Your task to perform on an android device: make emails show in primary in the gmail app Image 0: 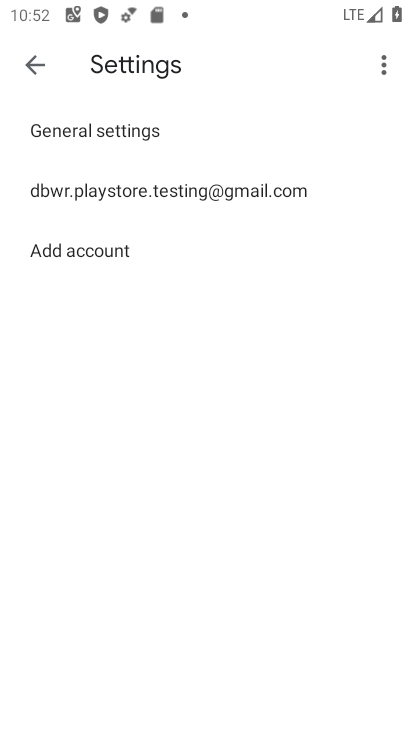
Step 0: press home button
Your task to perform on an android device: make emails show in primary in the gmail app Image 1: 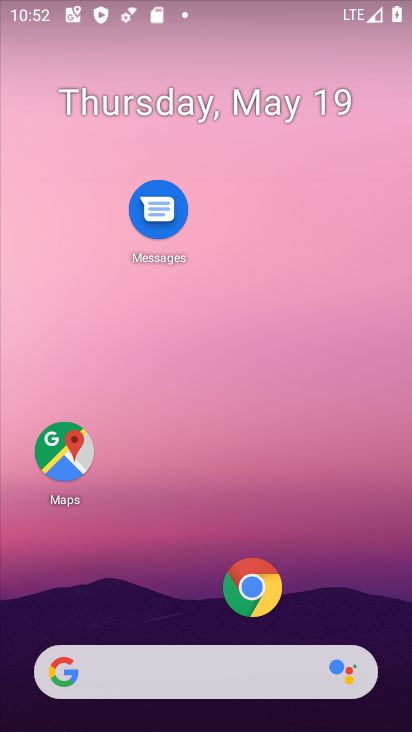
Step 1: drag from (162, 585) to (196, 42)
Your task to perform on an android device: make emails show in primary in the gmail app Image 2: 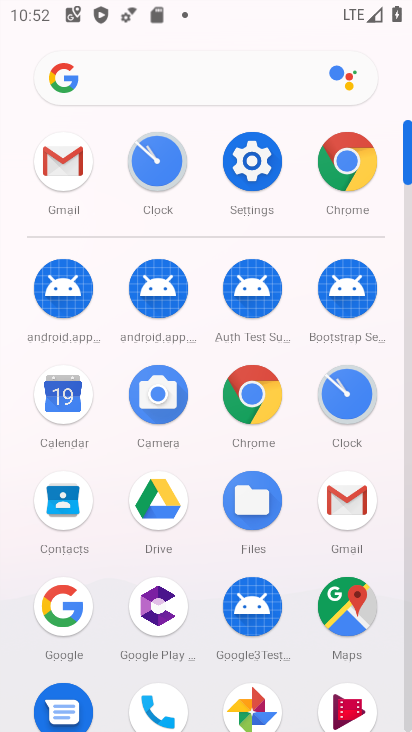
Step 2: click (56, 149)
Your task to perform on an android device: make emails show in primary in the gmail app Image 3: 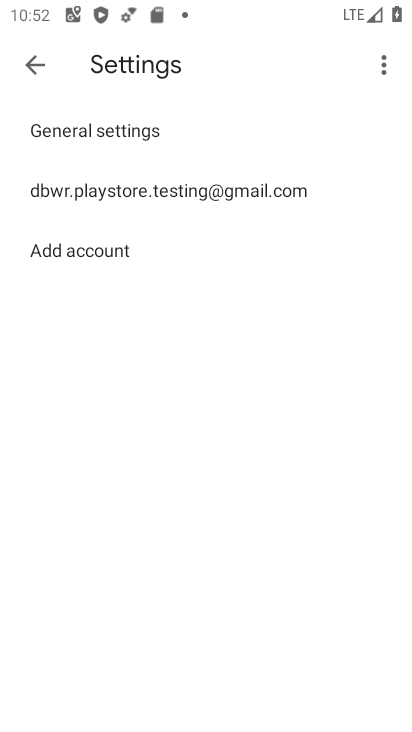
Step 3: click (150, 197)
Your task to perform on an android device: make emails show in primary in the gmail app Image 4: 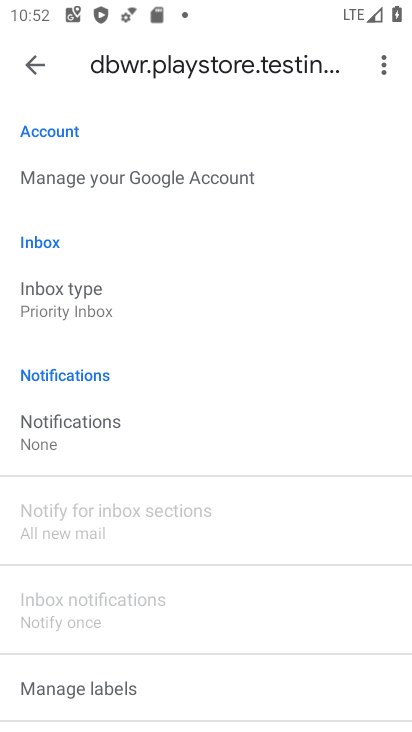
Step 4: click (27, 62)
Your task to perform on an android device: make emails show in primary in the gmail app Image 5: 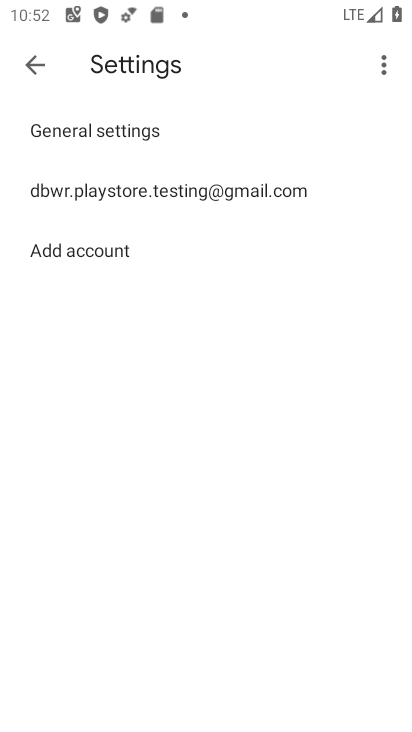
Step 5: click (27, 62)
Your task to perform on an android device: make emails show in primary in the gmail app Image 6: 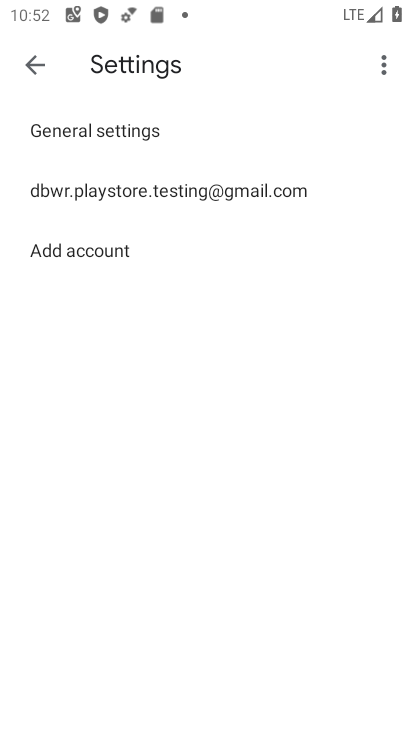
Step 6: click (27, 62)
Your task to perform on an android device: make emails show in primary in the gmail app Image 7: 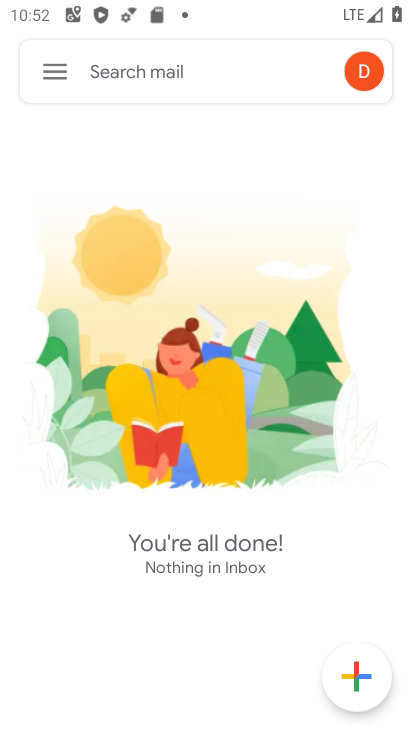
Step 7: click (60, 80)
Your task to perform on an android device: make emails show in primary in the gmail app Image 8: 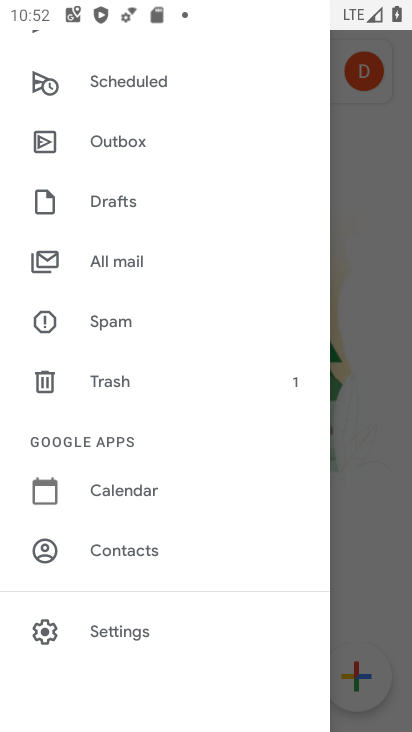
Step 8: task complete